Your task to perform on an android device: toggle location history Image 0: 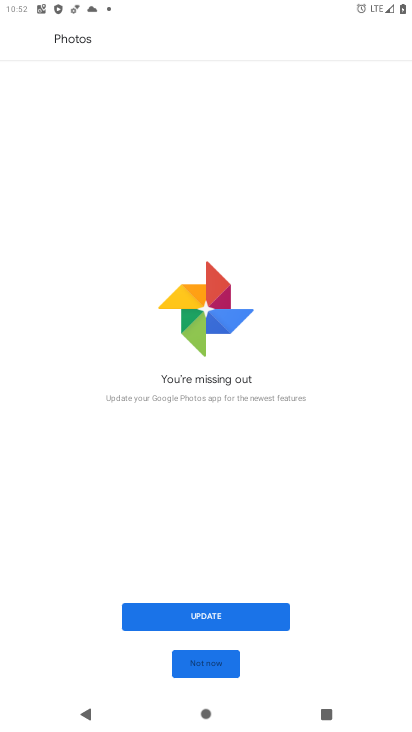
Step 0: press home button
Your task to perform on an android device: toggle location history Image 1: 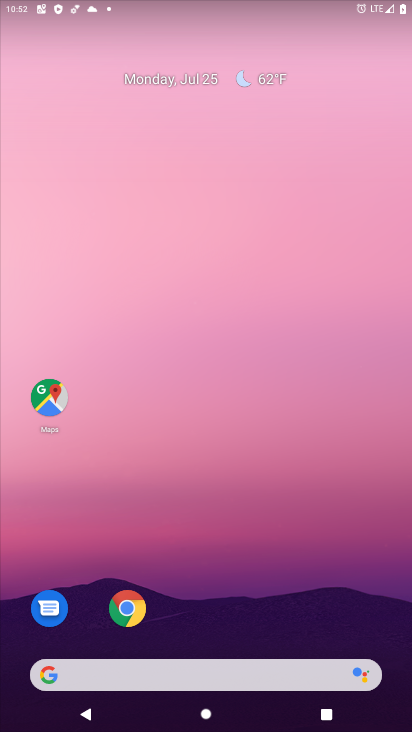
Step 1: drag from (180, 463) to (74, 19)
Your task to perform on an android device: toggle location history Image 2: 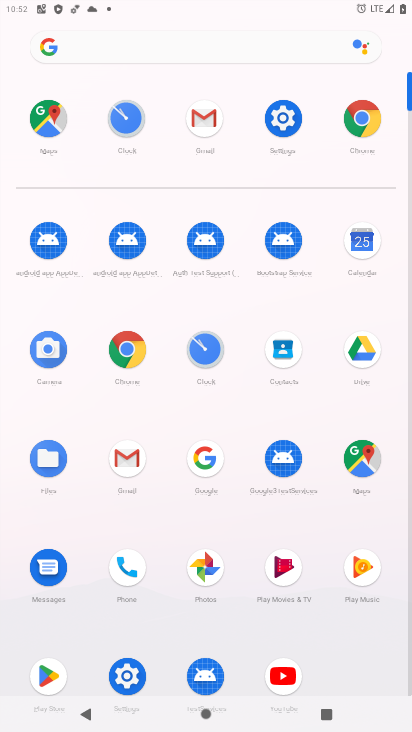
Step 2: click (126, 666)
Your task to perform on an android device: toggle location history Image 3: 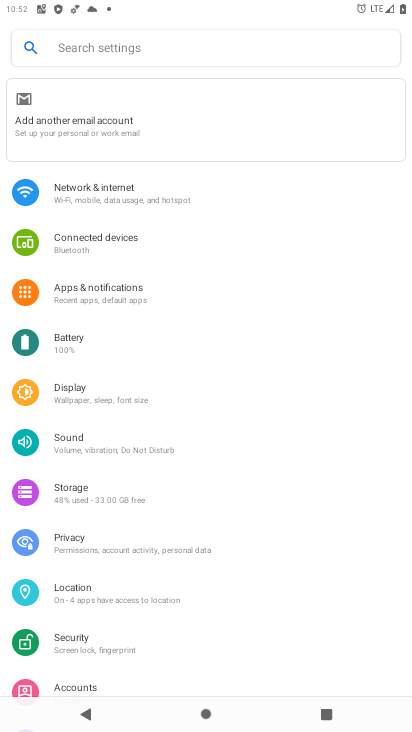
Step 3: click (98, 592)
Your task to perform on an android device: toggle location history Image 4: 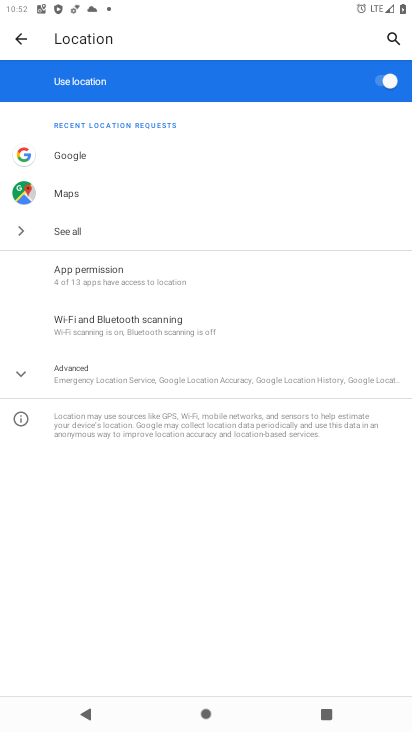
Step 4: click (104, 379)
Your task to perform on an android device: toggle location history Image 5: 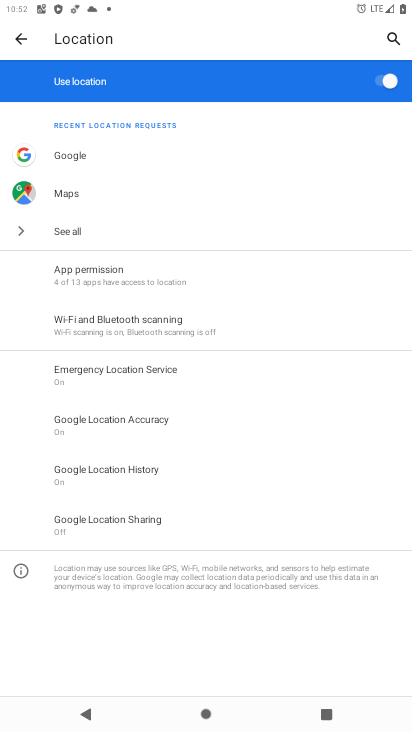
Step 5: click (148, 471)
Your task to perform on an android device: toggle location history Image 6: 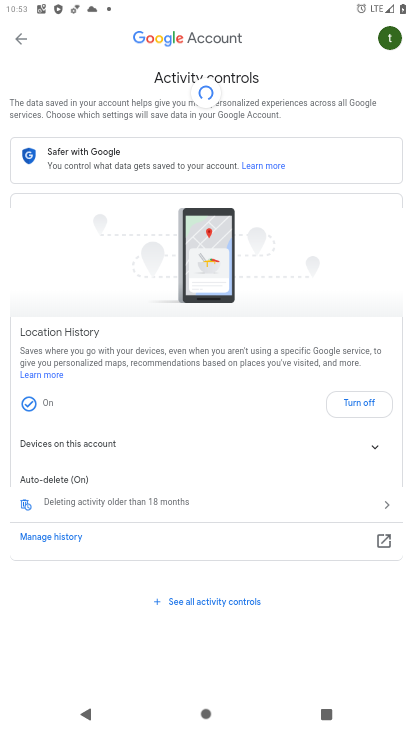
Step 6: click (371, 404)
Your task to perform on an android device: toggle location history Image 7: 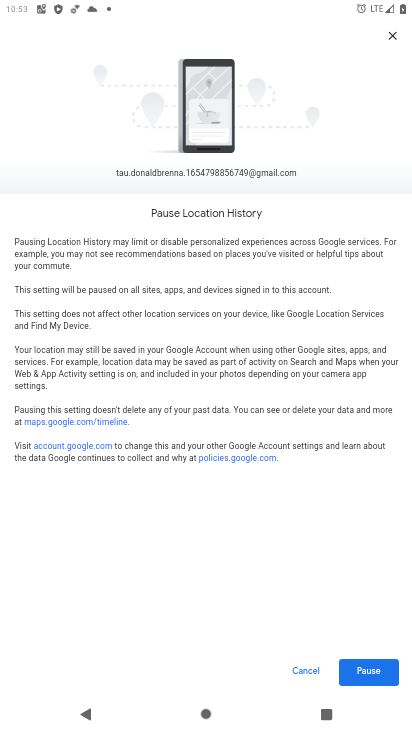
Step 7: click (382, 668)
Your task to perform on an android device: toggle location history Image 8: 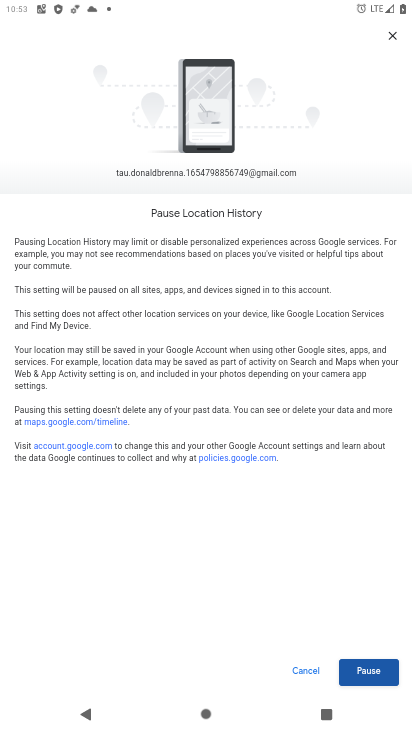
Step 8: click (375, 667)
Your task to perform on an android device: toggle location history Image 9: 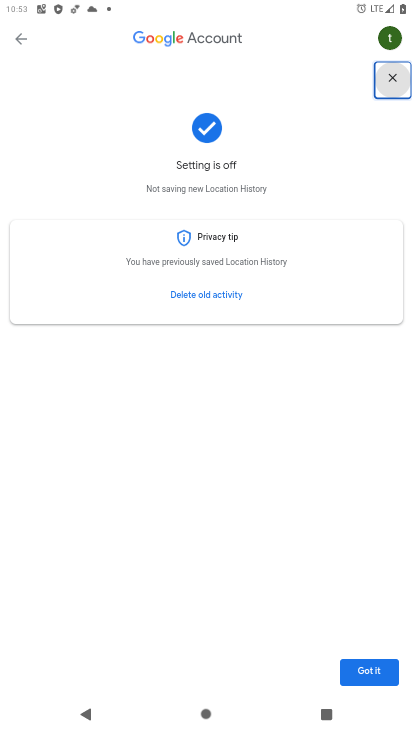
Step 9: click (372, 671)
Your task to perform on an android device: toggle location history Image 10: 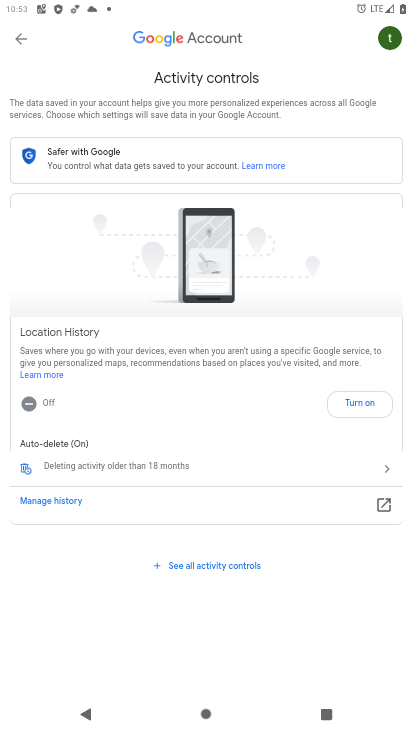
Step 10: task complete